Your task to perform on an android device: delete browsing data in the chrome app Image 0: 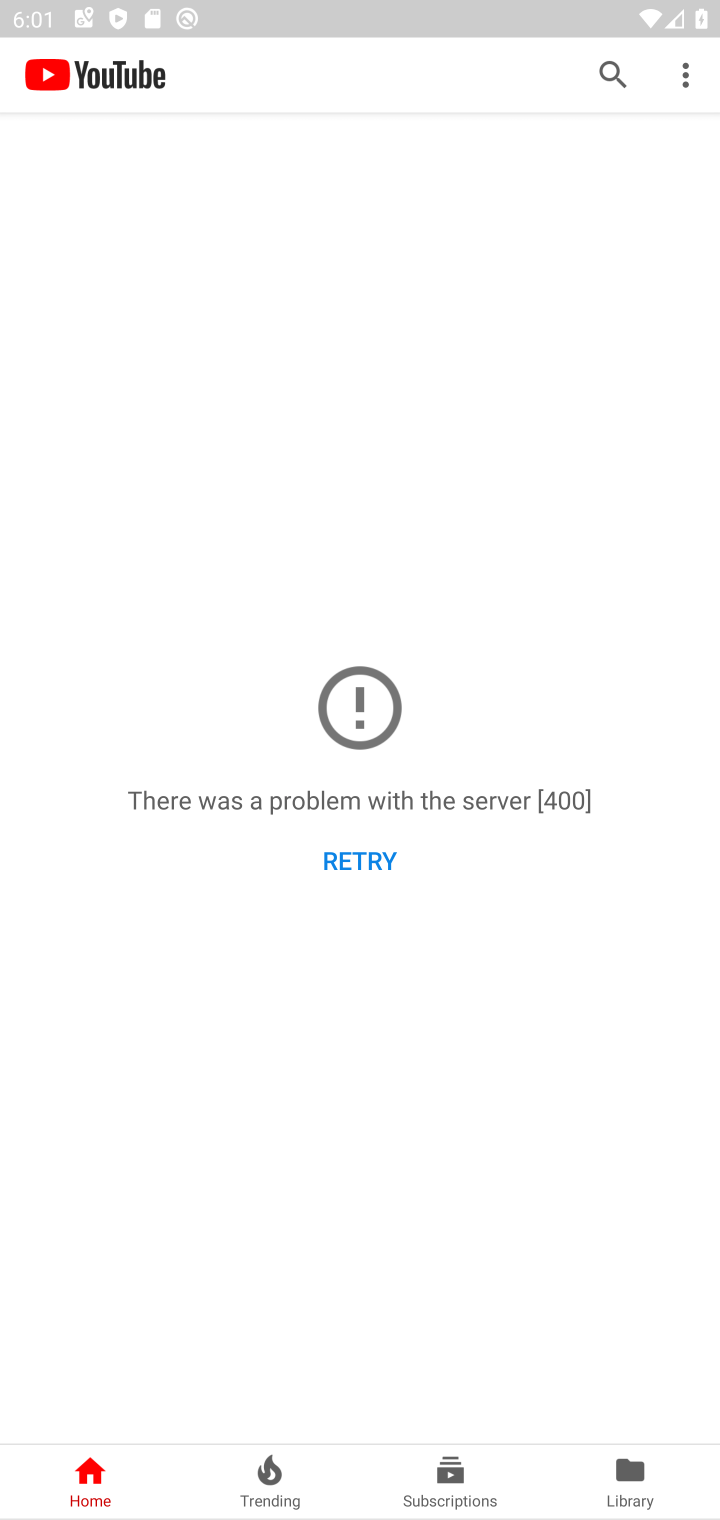
Step 0: press back button
Your task to perform on an android device: delete browsing data in the chrome app Image 1: 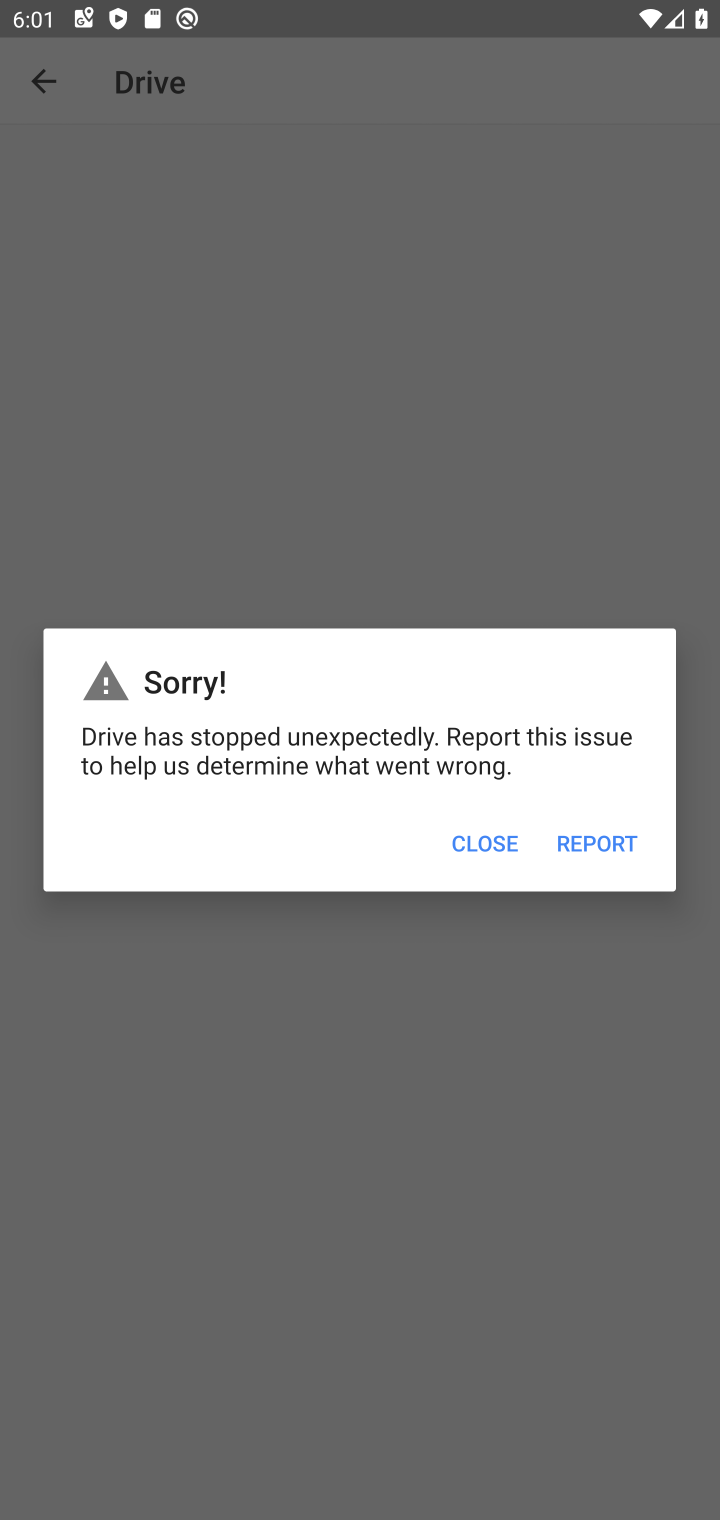
Step 1: press home button
Your task to perform on an android device: delete browsing data in the chrome app Image 2: 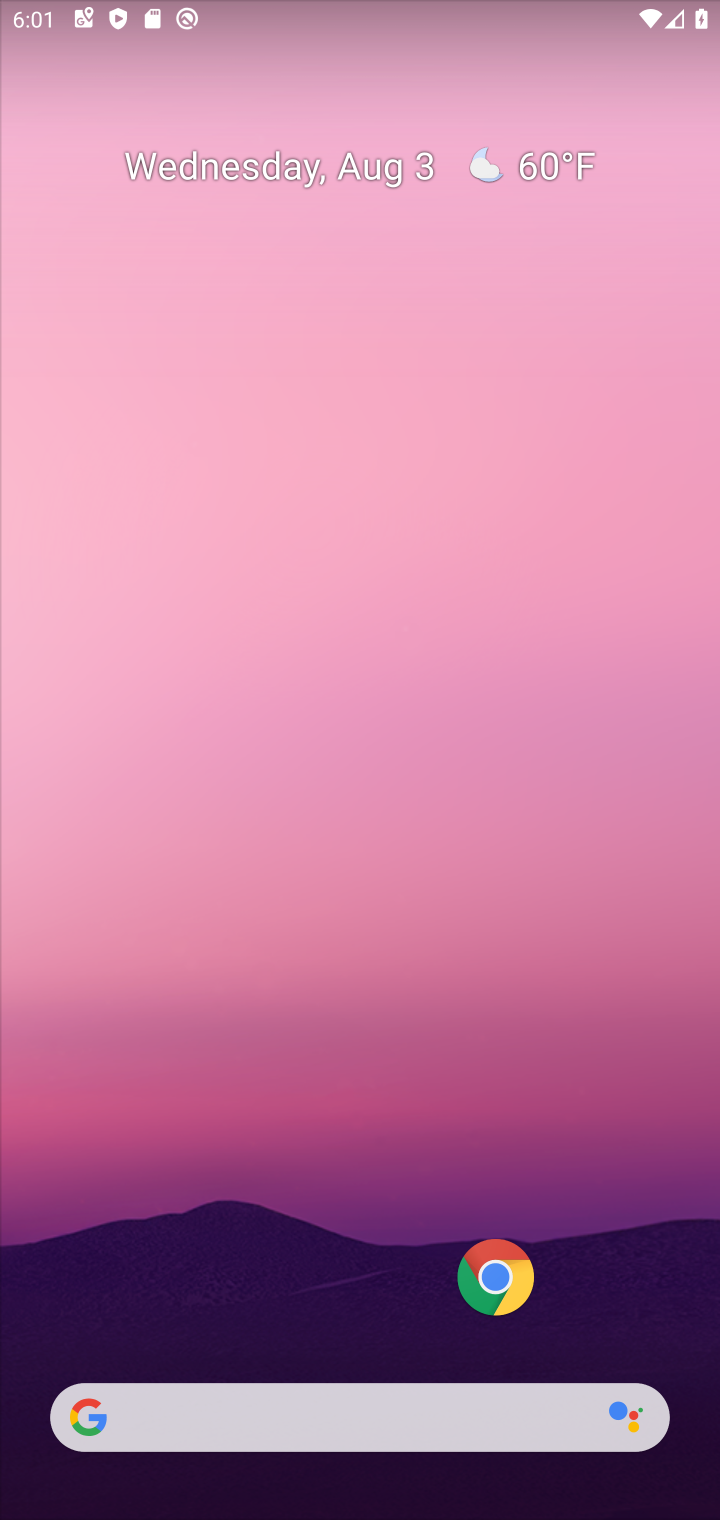
Step 2: click (505, 1276)
Your task to perform on an android device: delete browsing data in the chrome app Image 3: 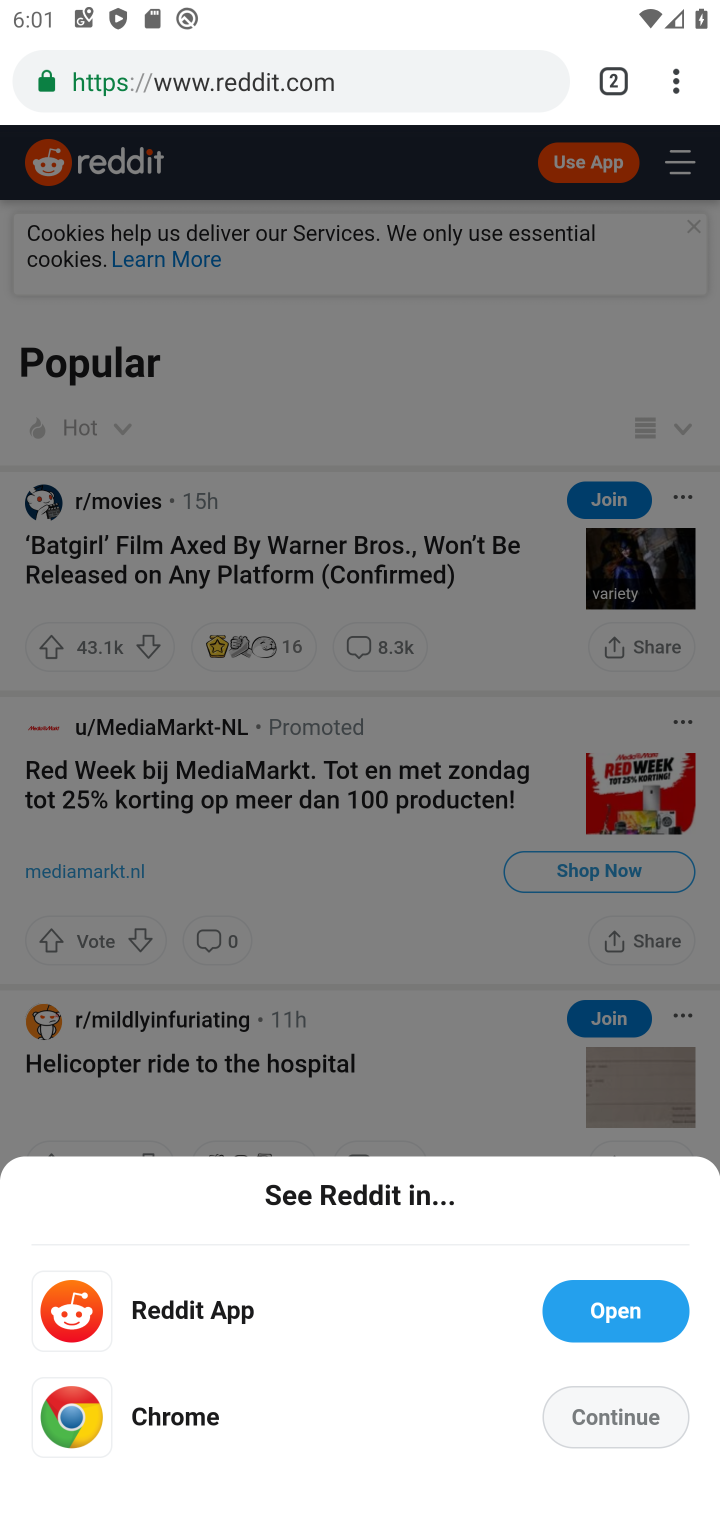
Step 3: drag from (674, 74) to (409, 537)
Your task to perform on an android device: delete browsing data in the chrome app Image 4: 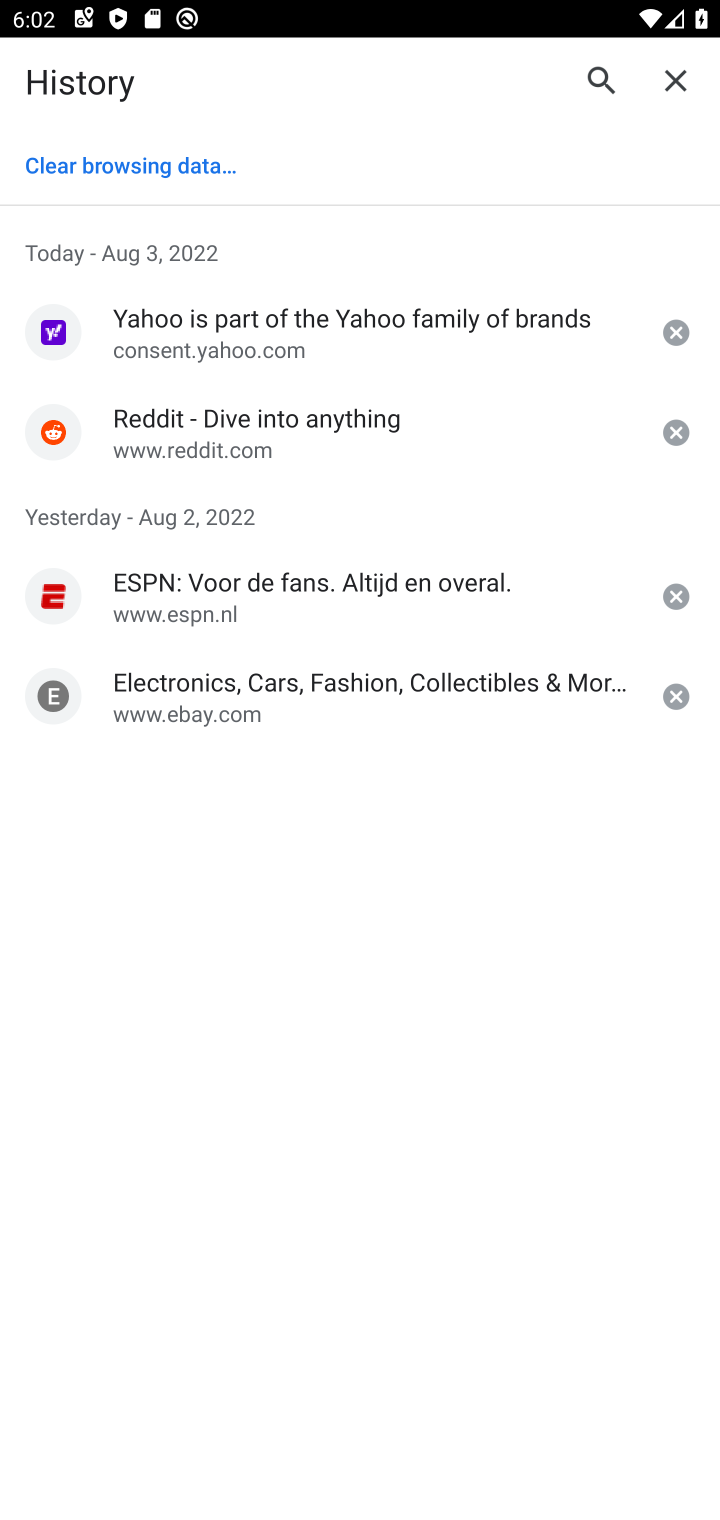
Step 4: click (113, 153)
Your task to perform on an android device: delete browsing data in the chrome app Image 5: 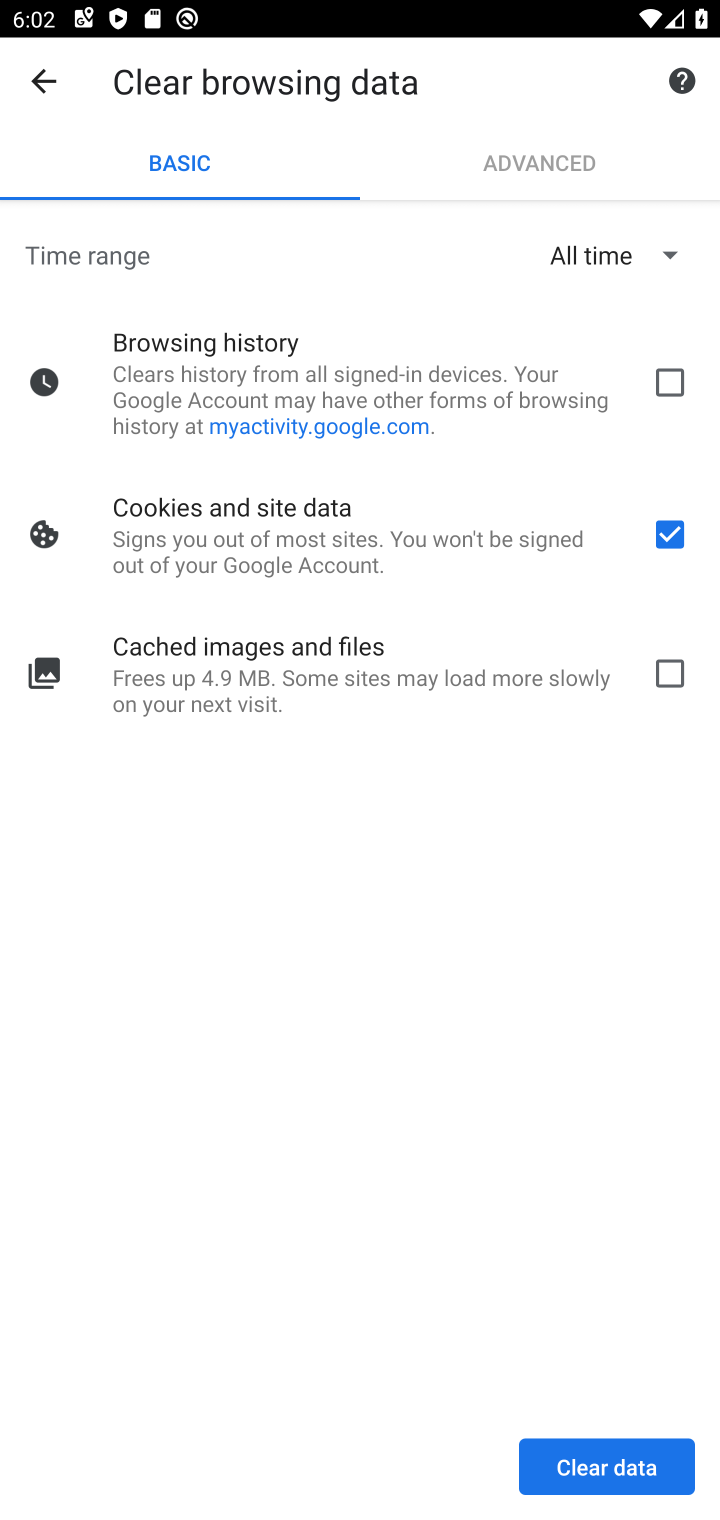
Step 5: click (660, 370)
Your task to perform on an android device: delete browsing data in the chrome app Image 6: 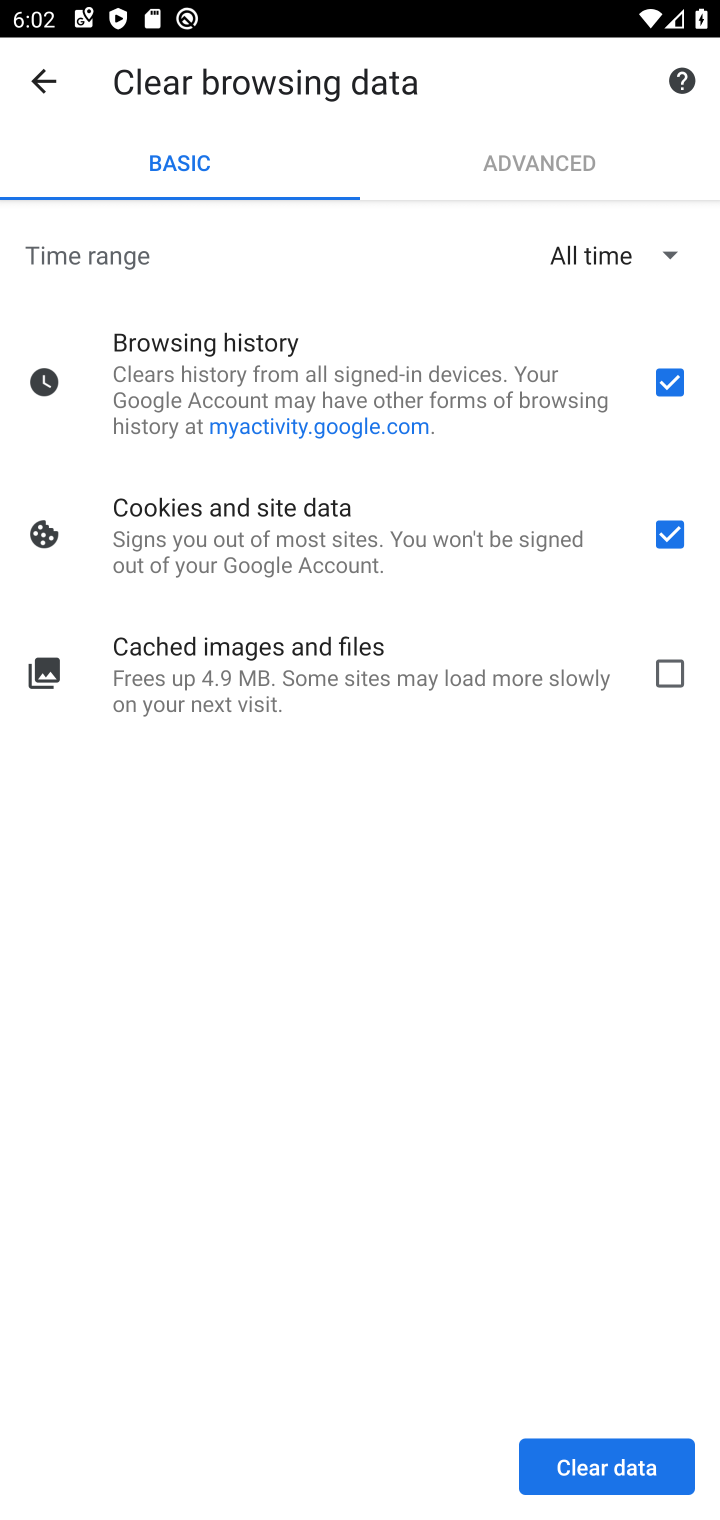
Step 6: click (658, 681)
Your task to perform on an android device: delete browsing data in the chrome app Image 7: 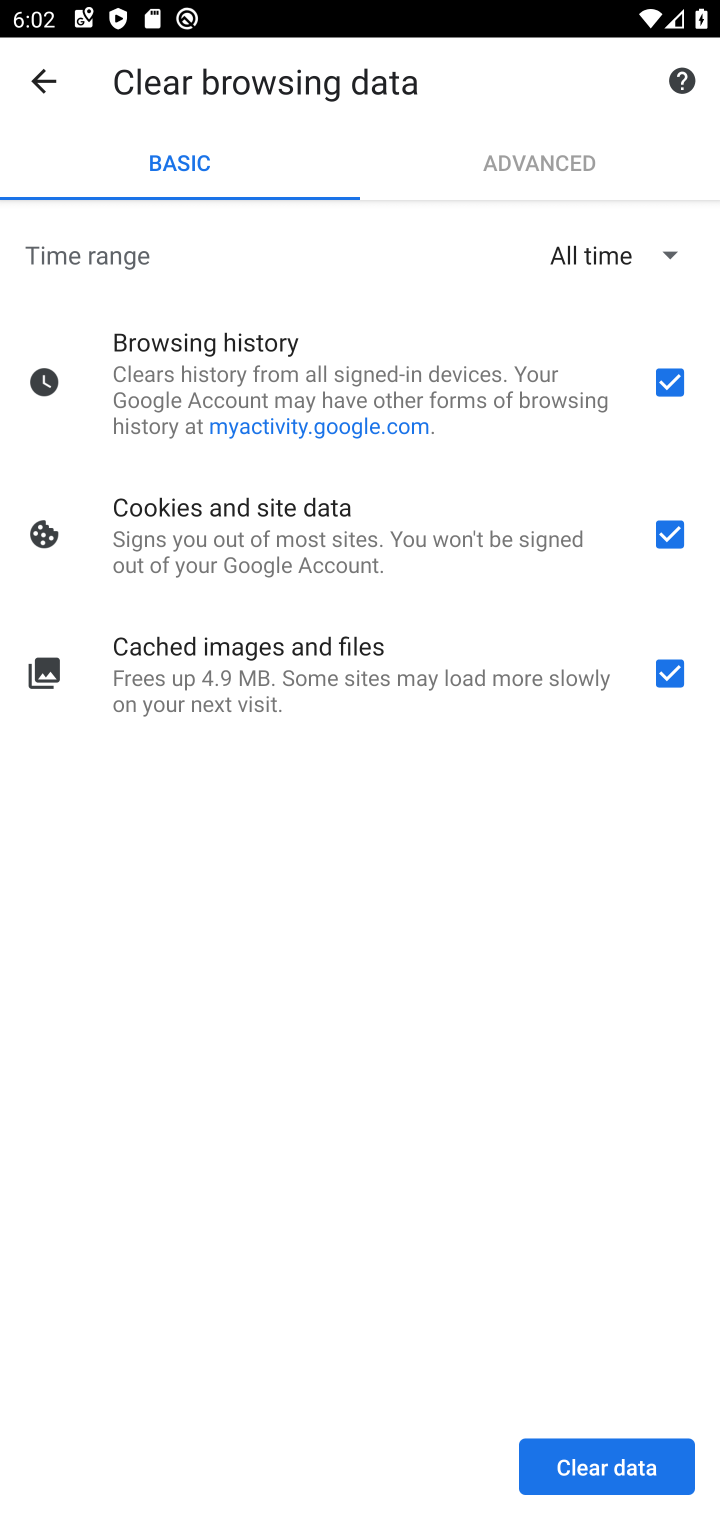
Step 7: click (570, 1474)
Your task to perform on an android device: delete browsing data in the chrome app Image 8: 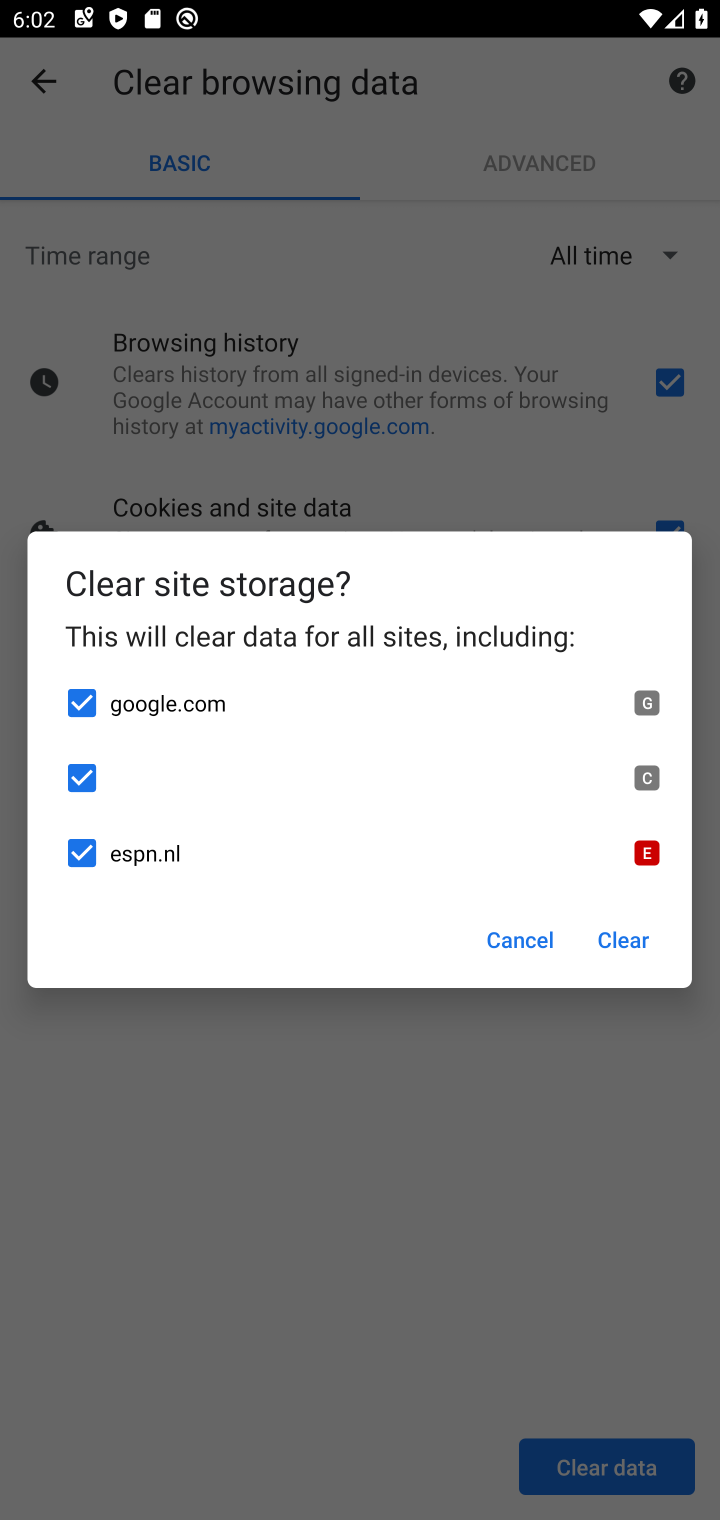
Step 8: click (612, 948)
Your task to perform on an android device: delete browsing data in the chrome app Image 9: 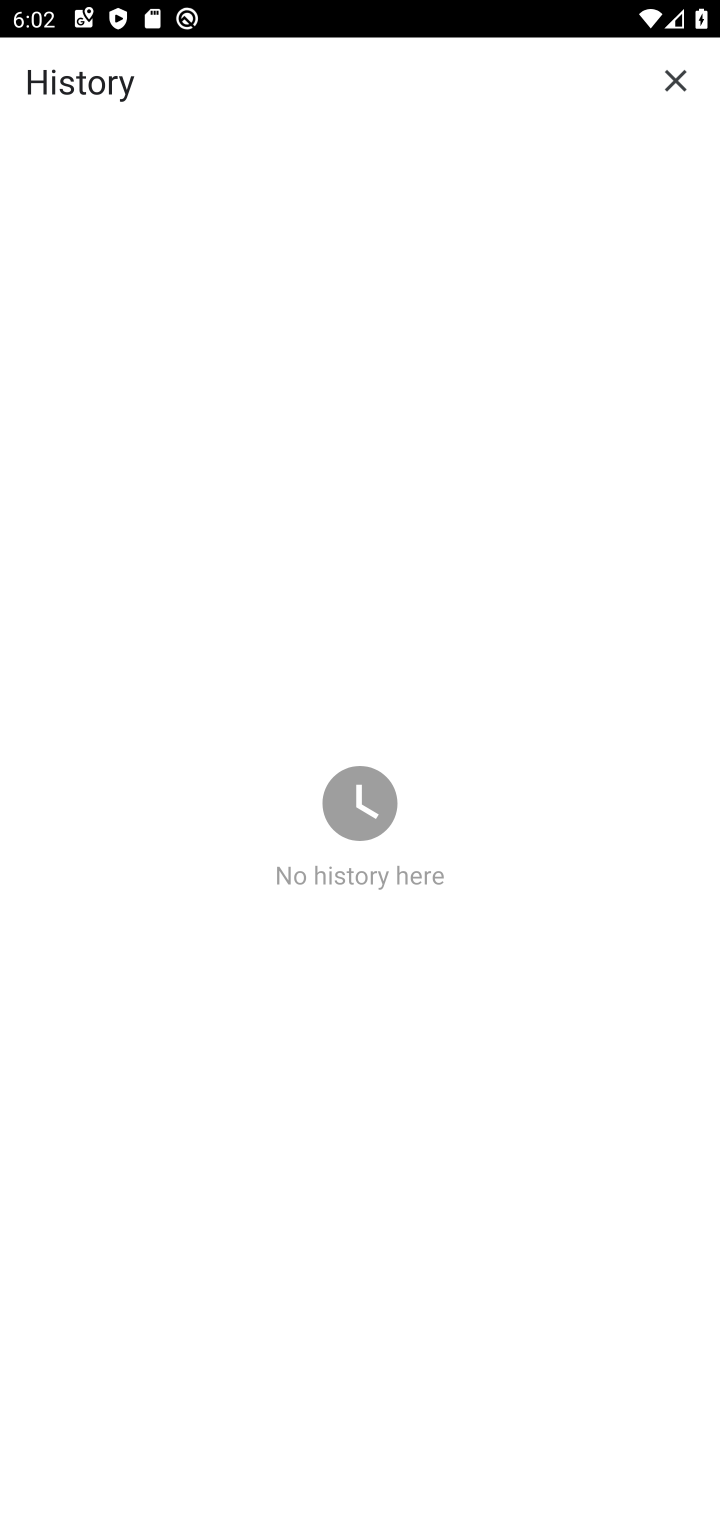
Step 9: task complete